Your task to perform on an android device: Go to network settings Image 0: 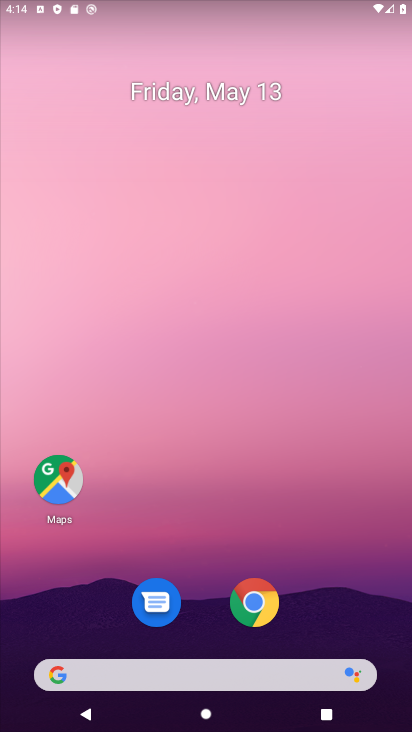
Step 0: drag from (210, 632) to (165, 220)
Your task to perform on an android device: Go to network settings Image 1: 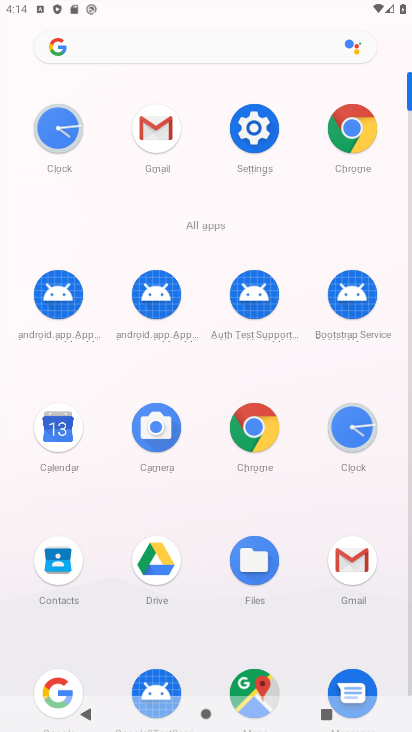
Step 1: click (246, 130)
Your task to perform on an android device: Go to network settings Image 2: 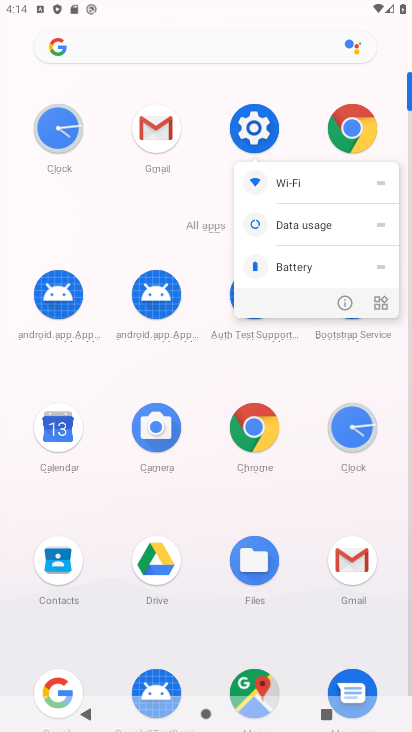
Step 2: click (246, 129)
Your task to perform on an android device: Go to network settings Image 3: 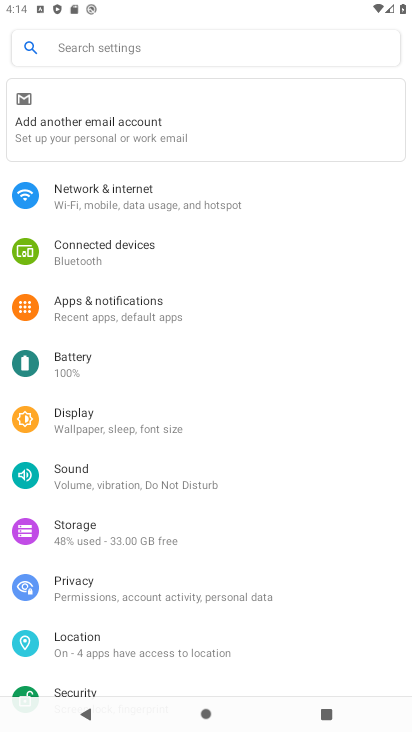
Step 3: click (130, 208)
Your task to perform on an android device: Go to network settings Image 4: 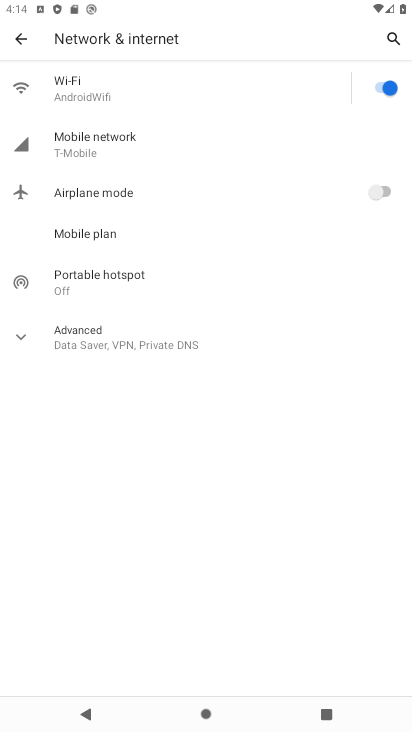
Step 4: click (122, 338)
Your task to perform on an android device: Go to network settings Image 5: 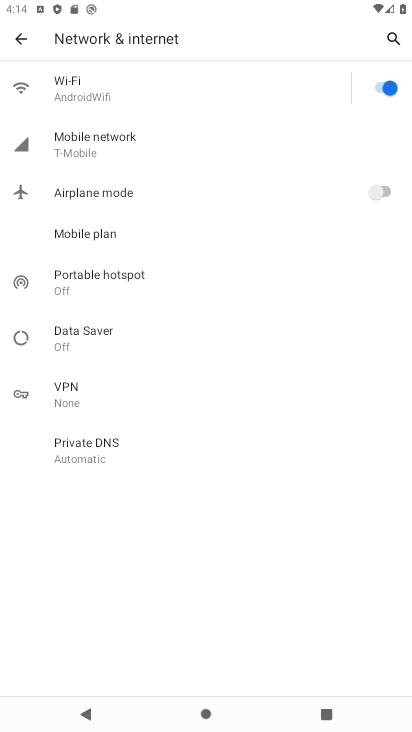
Step 5: task complete